Your task to perform on an android device: add a contact in the contacts app Image 0: 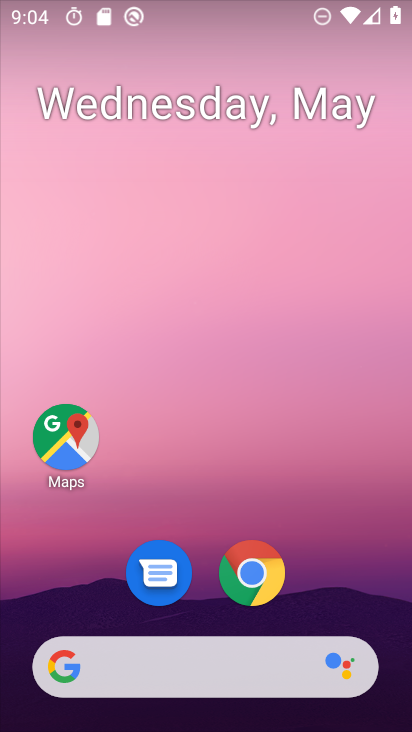
Step 0: drag from (391, 659) to (370, 372)
Your task to perform on an android device: add a contact in the contacts app Image 1: 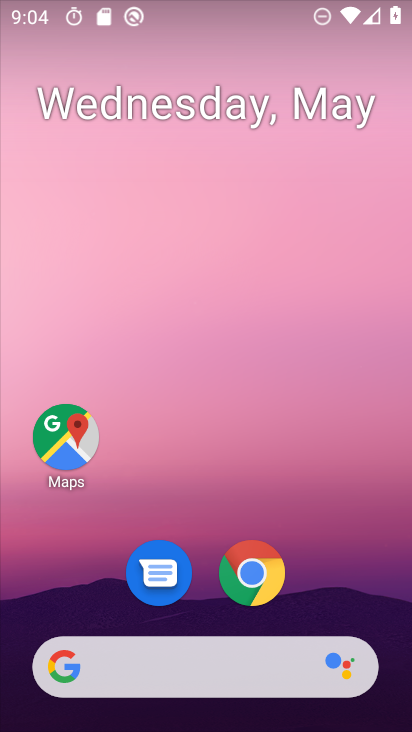
Step 1: drag from (396, 676) to (375, 369)
Your task to perform on an android device: add a contact in the contacts app Image 2: 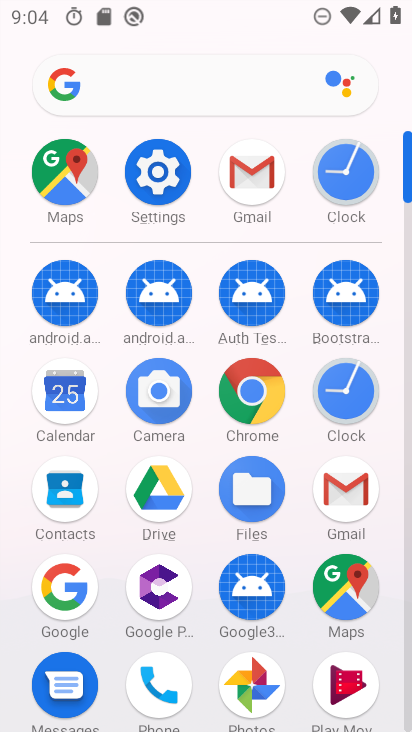
Step 2: click (53, 484)
Your task to perform on an android device: add a contact in the contacts app Image 3: 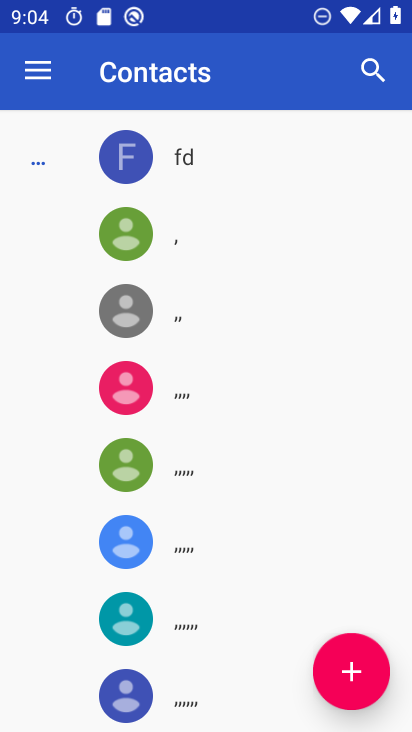
Step 3: click (337, 665)
Your task to perform on an android device: add a contact in the contacts app Image 4: 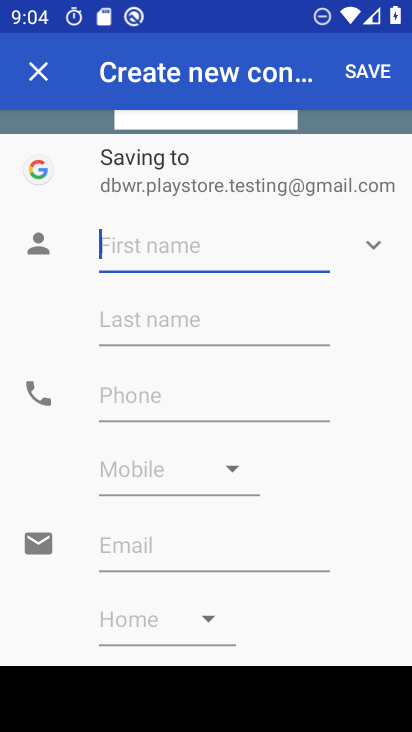
Step 4: type "gjhkljhg"
Your task to perform on an android device: add a contact in the contacts app Image 5: 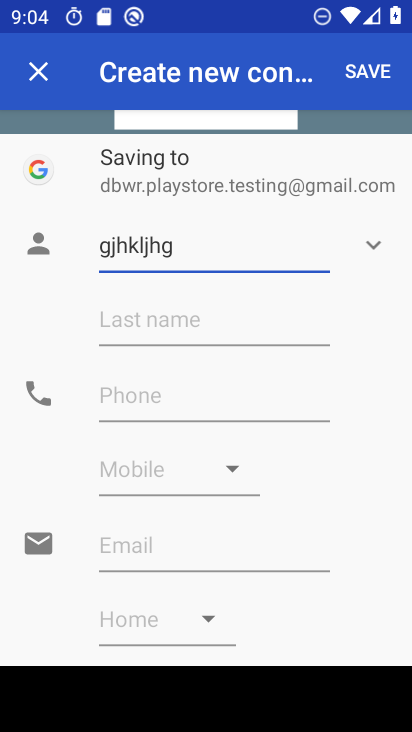
Step 5: click (223, 307)
Your task to perform on an android device: add a contact in the contacts app Image 6: 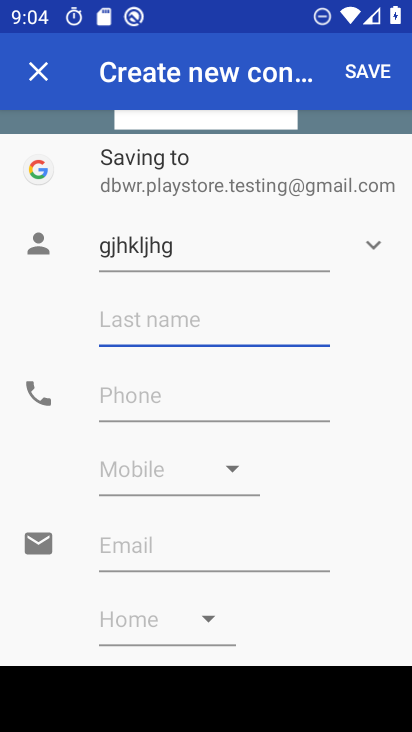
Step 6: type "ghn n "
Your task to perform on an android device: add a contact in the contacts app Image 7: 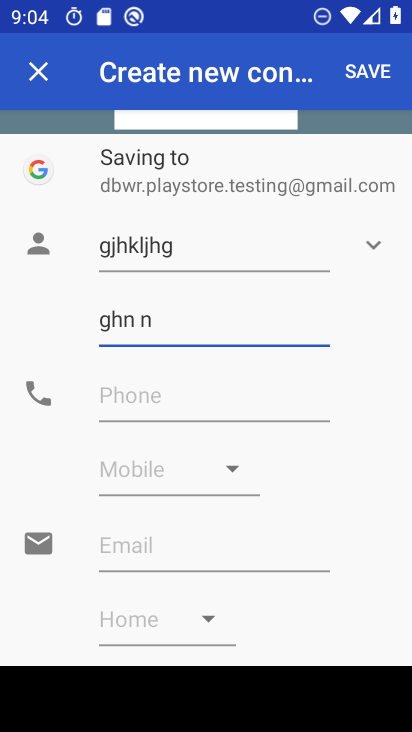
Step 7: click (126, 394)
Your task to perform on an android device: add a contact in the contacts app Image 8: 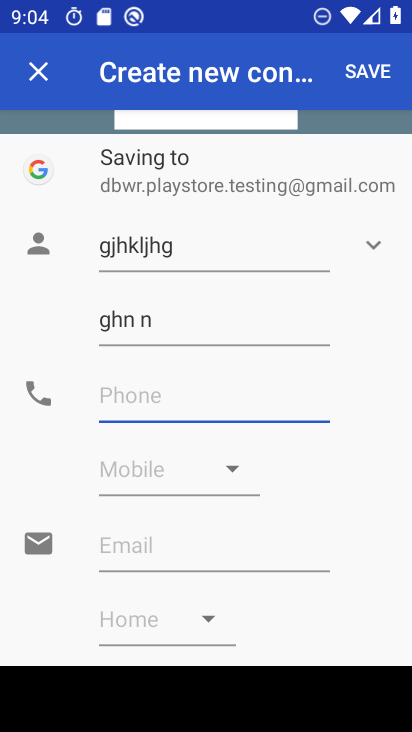
Step 8: type "98764567876"
Your task to perform on an android device: add a contact in the contacts app Image 9: 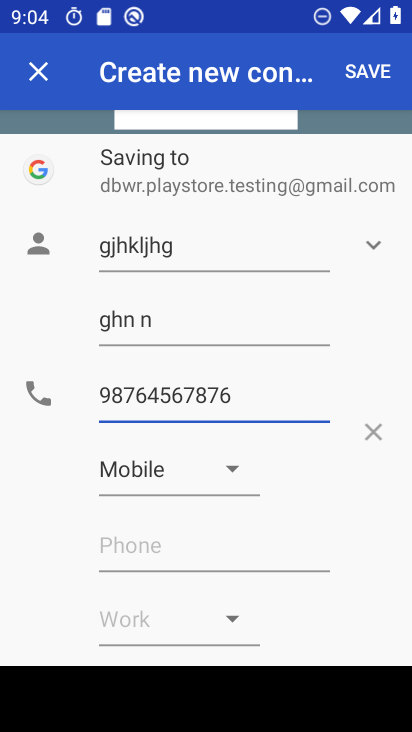
Step 9: click (361, 72)
Your task to perform on an android device: add a contact in the contacts app Image 10: 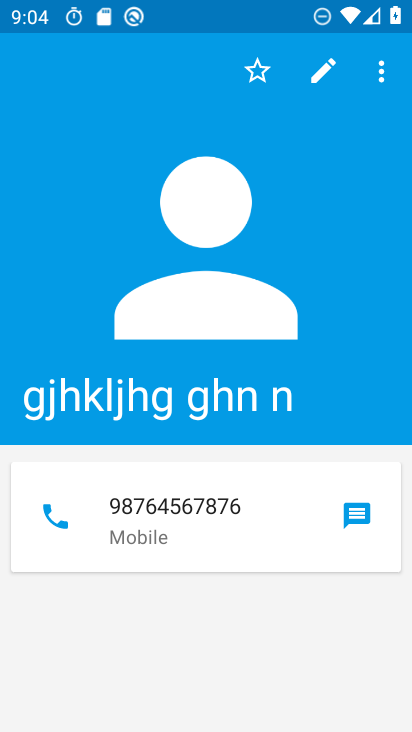
Step 10: task complete